Your task to perform on an android device: Go to Amazon Image 0: 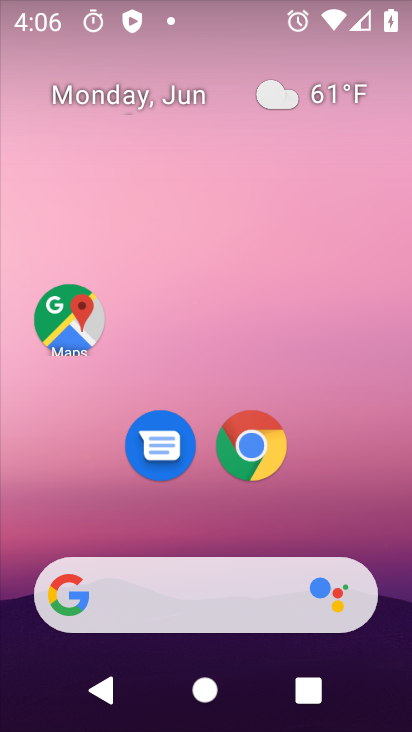
Step 0: click (243, 448)
Your task to perform on an android device: Go to Amazon Image 1: 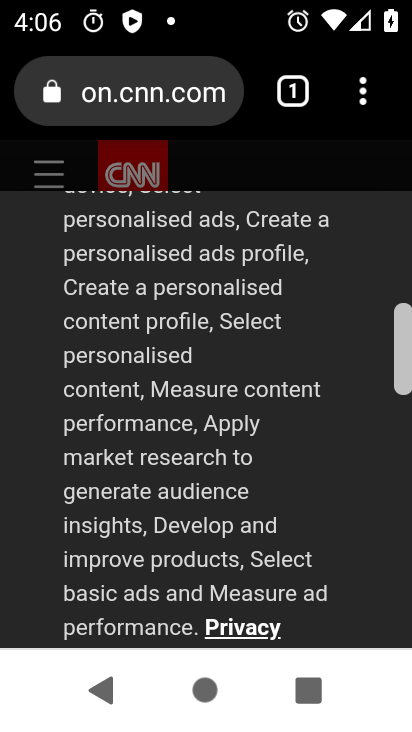
Step 1: press back button
Your task to perform on an android device: Go to Amazon Image 2: 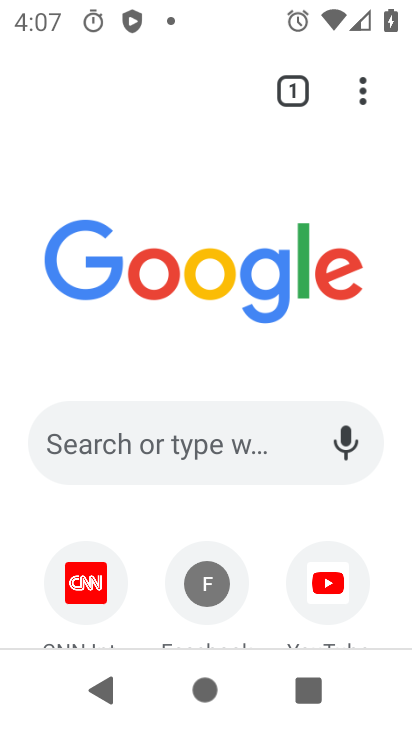
Step 2: drag from (232, 545) to (273, 141)
Your task to perform on an android device: Go to Amazon Image 3: 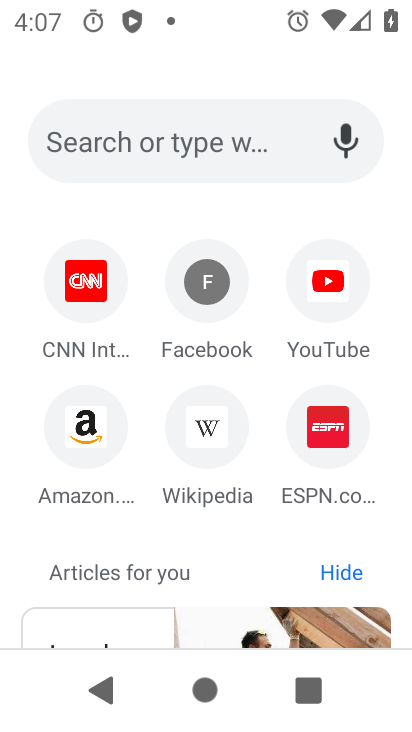
Step 3: click (90, 436)
Your task to perform on an android device: Go to Amazon Image 4: 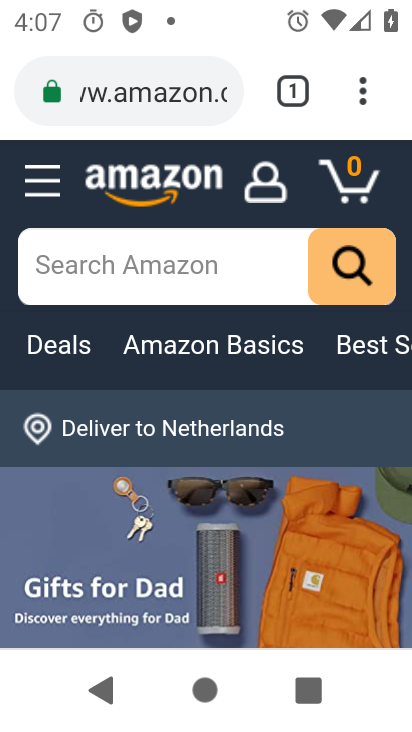
Step 4: task complete